Your task to perform on an android device: toggle javascript in the chrome app Image 0: 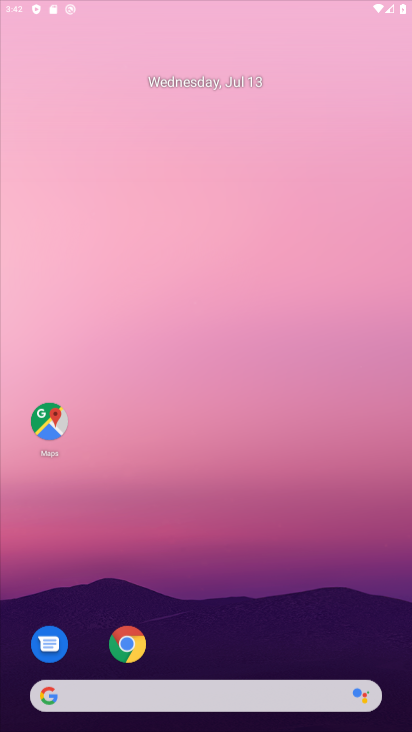
Step 0: drag from (231, 597) to (248, 132)
Your task to perform on an android device: toggle javascript in the chrome app Image 1: 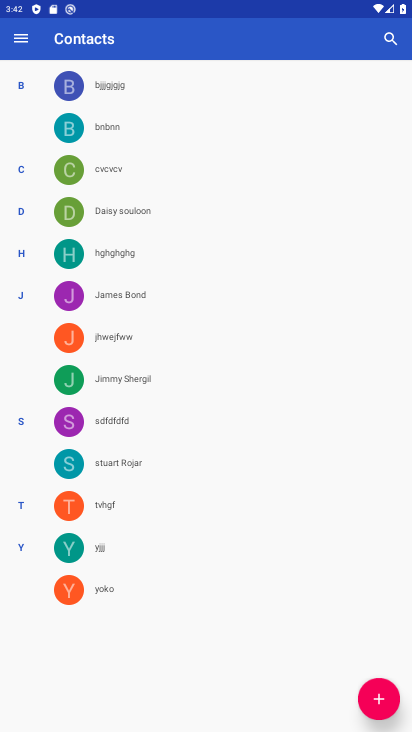
Step 1: press back button
Your task to perform on an android device: toggle javascript in the chrome app Image 2: 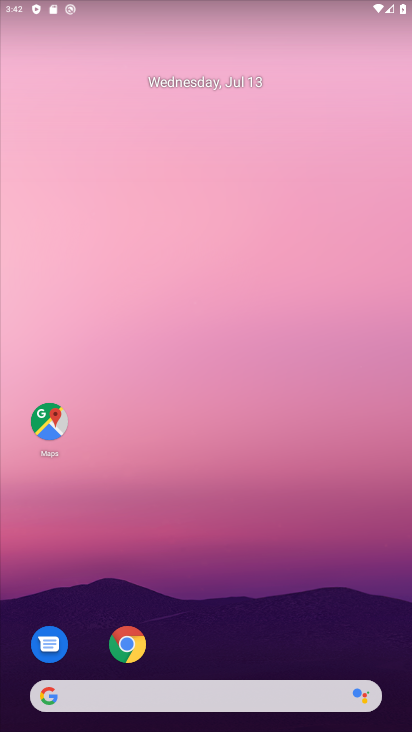
Step 2: drag from (188, 645) to (232, 90)
Your task to perform on an android device: toggle javascript in the chrome app Image 3: 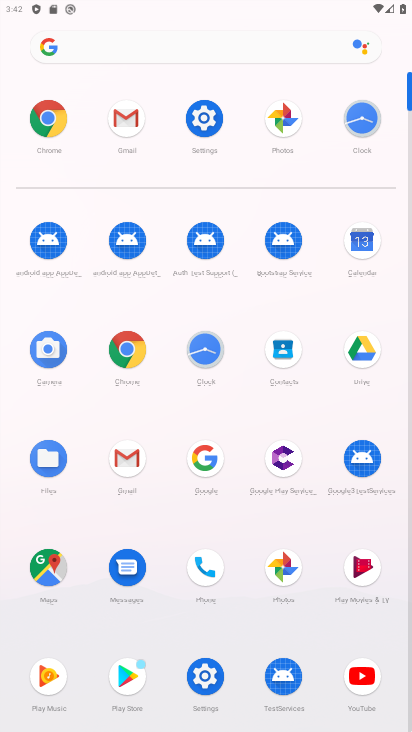
Step 3: click (47, 106)
Your task to perform on an android device: toggle javascript in the chrome app Image 4: 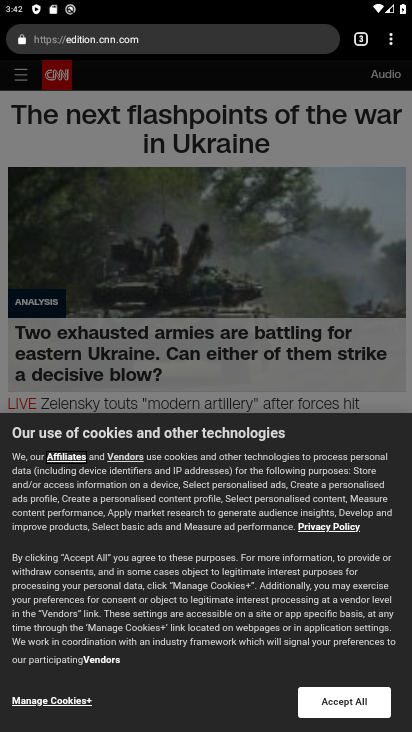
Step 4: drag from (394, 35) to (259, 432)
Your task to perform on an android device: toggle javascript in the chrome app Image 5: 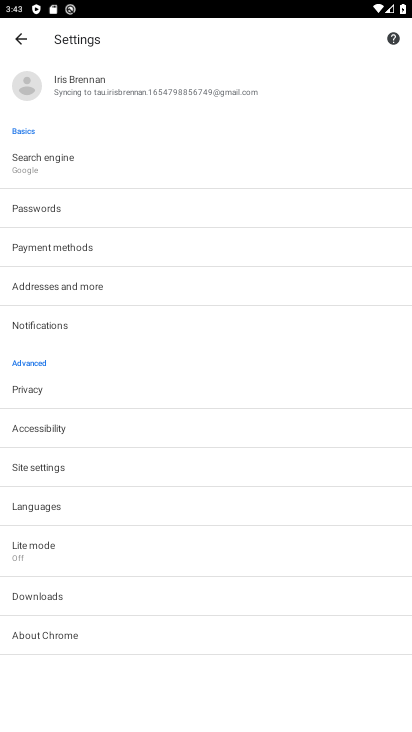
Step 5: click (67, 469)
Your task to perform on an android device: toggle javascript in the chrome app Image 6: 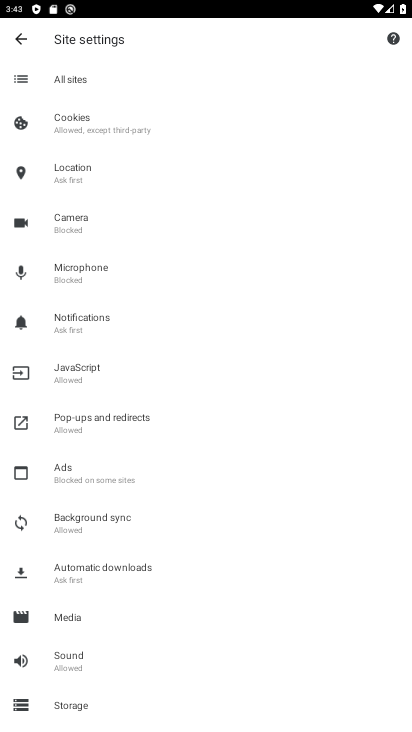
Step 6: click (96, 371)
Your task to perform on an android device: toggle javascript in the chrome app Image 7: 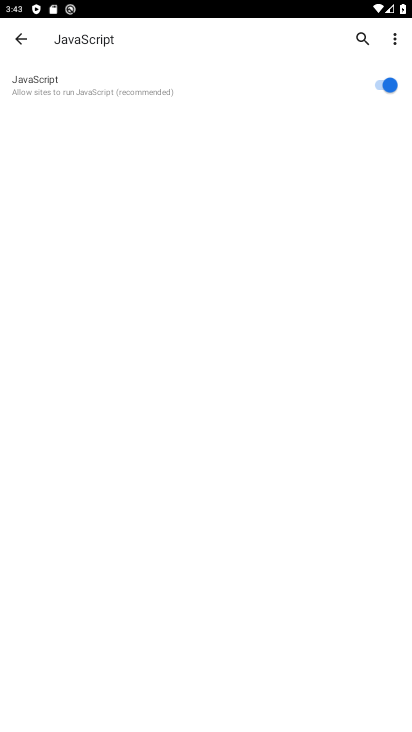
Step 7: click (389, 82)
Your task to perform on an android device: toggle javascript in the chrome app Image 8: 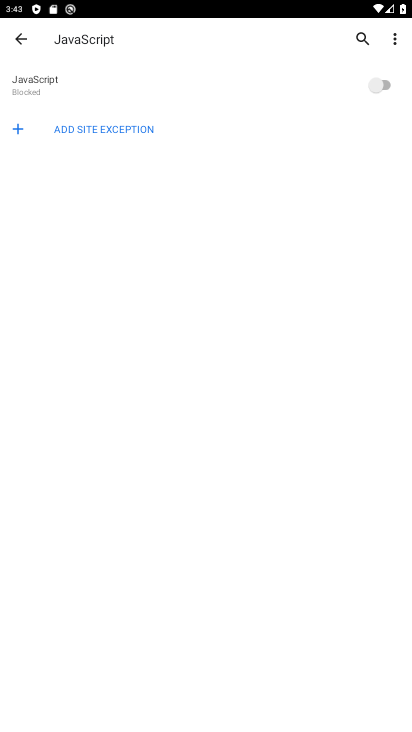
Step 8: task complete